Your task to perform on an android device: Go to privacy settings Image 0: 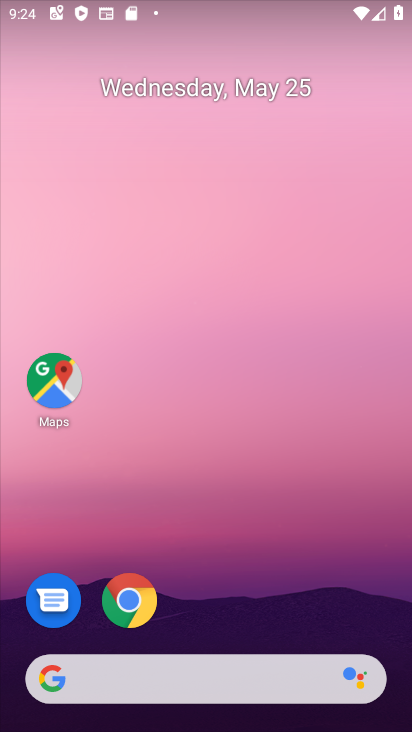
Step 0: drag from (231, 565) to (205, 65)
Your task to perform on an android device: Go to privacy settings Image 1: 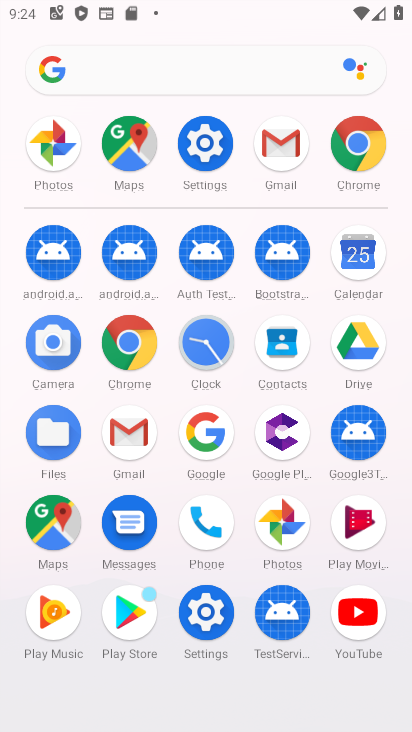
Step 1: drag from (6, 582) to (14, 249)
Your task to perform on an android device: Go to privacy settings Image 2: 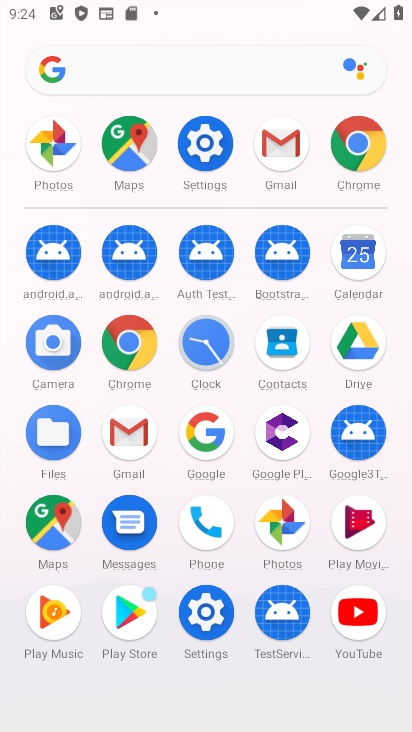
Step 2: click (125, 332)
Your task to perform on an android device: Go to privacy settings Image 3: 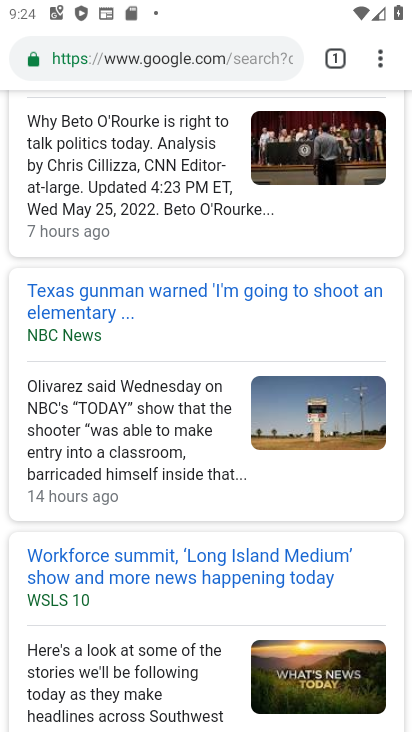
Step 3: drag from (377, 58) to (158, 632)
Your task to perform on an android device: Go to privacy settings Image 4: 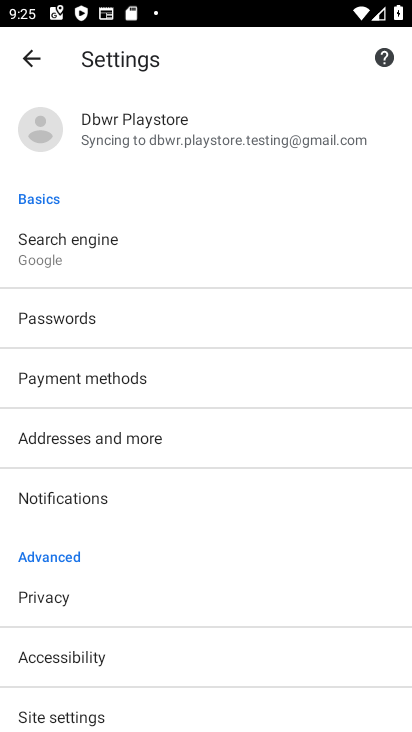
Step 4: click (82, 590)
Your task to perform on an android device: Go to privacy settings Image 5: 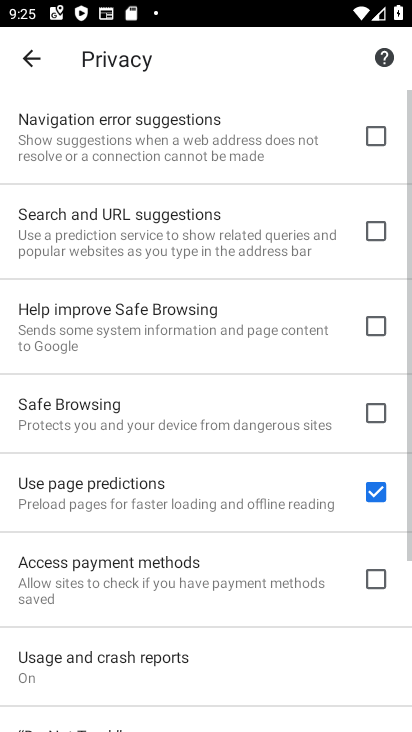
Step 5: task complete